Your task to perform on an android device: Open location settings Image 0: 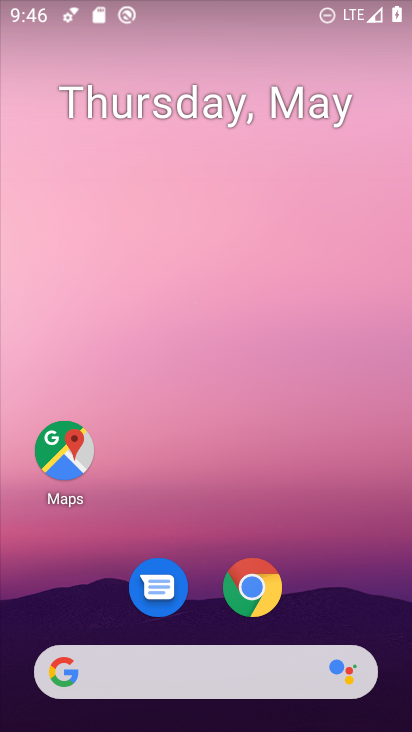
Step 0: drag from (366, 636) to (377, 7)
Your task to perform on an android device: Open location settings Image 1: 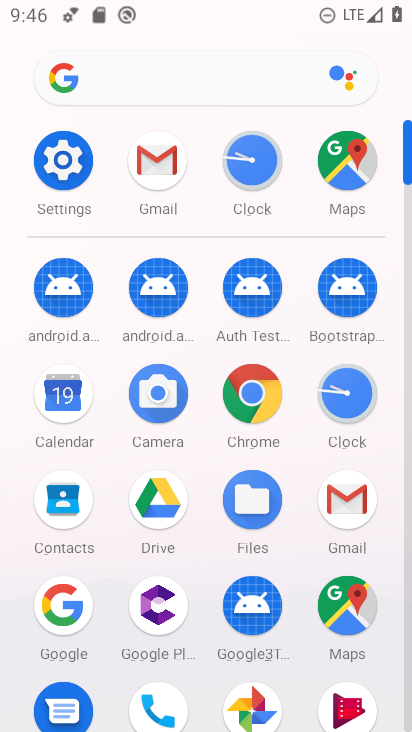
Step 1: click (53, 170)
Your task to perform on an android device: Open location settings Image 2: 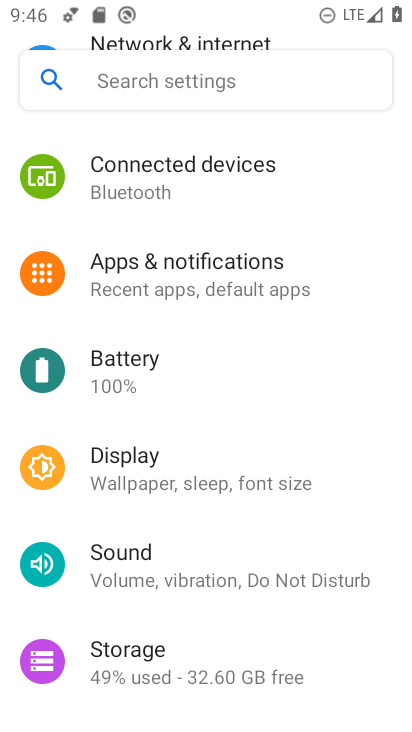
Step 2: drag from (337, 501) to (324, 218)
Your task to perform on an android device: Open location settings Image 3: 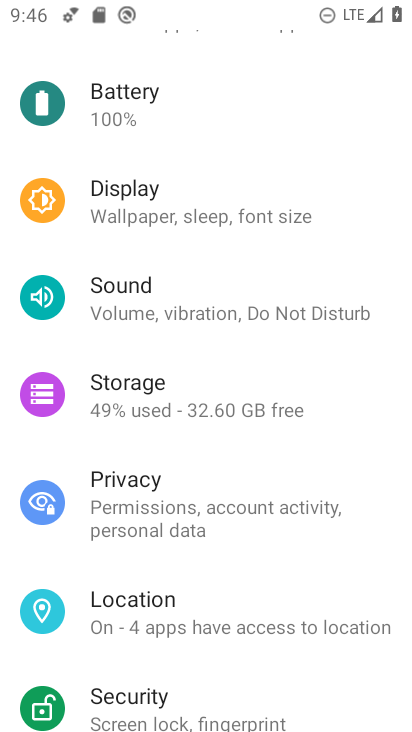
Step 3: click (117, 602)
Your task to perform on an android device: Open location settings Image 4: 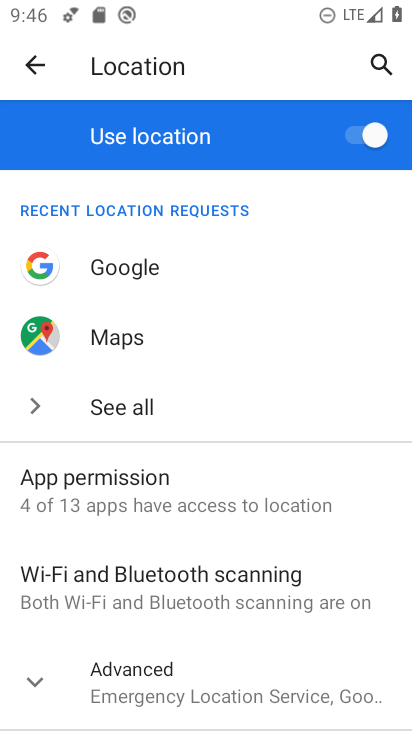
Step 4: task complete